Your task to perform on an android device: turn off wifi Image 0: 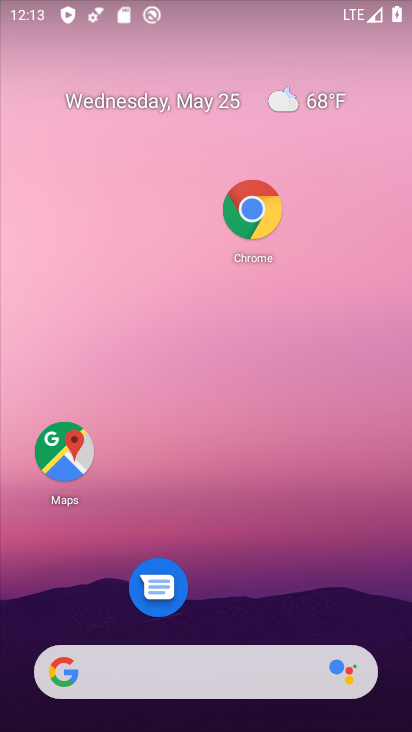
Step 0: drag from (219, 610) to (257, 86)
Your task to perform on an android device: turn off wifi Image 1: 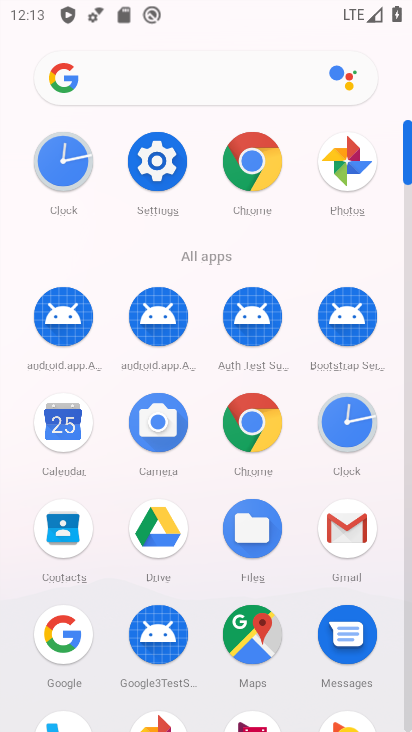
Step 1: task complete